Your task to perform on an android device: turn on sleep mode Image 0: 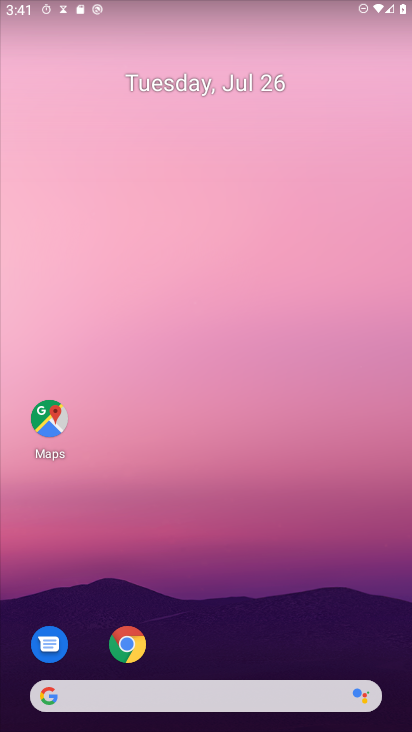
Step 0: click (52, 421)
Your task to perform on an android device: turn on sleep mode Image 1: 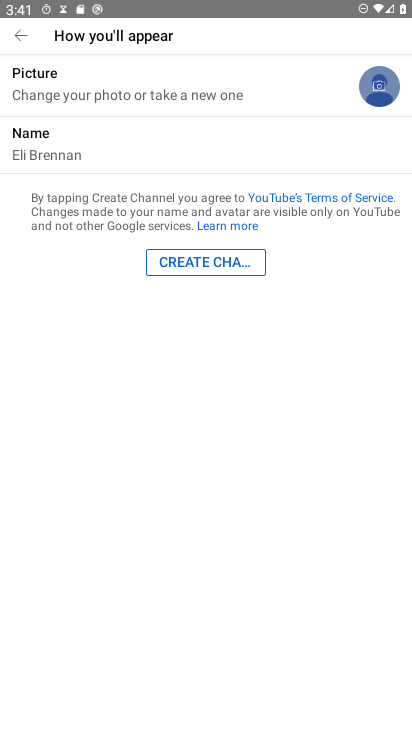
Step 1: press home button
Your task to perform on an android device: turn on sleep mode Image 2: 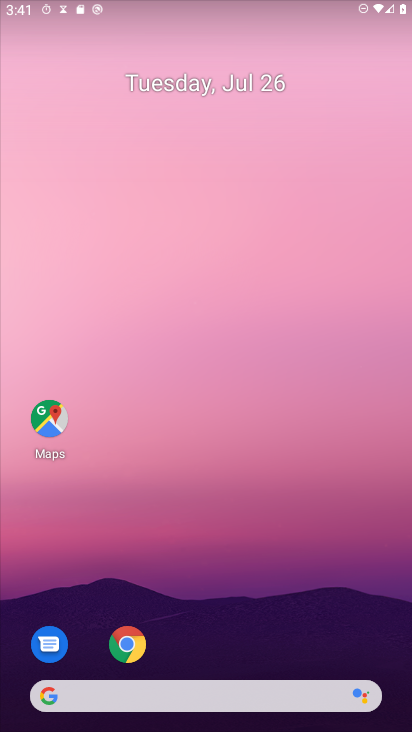
Step 2: drag from (308, 573) to (326, 75)
Your task to perform on an android device: turn on sleep mode Image 3: 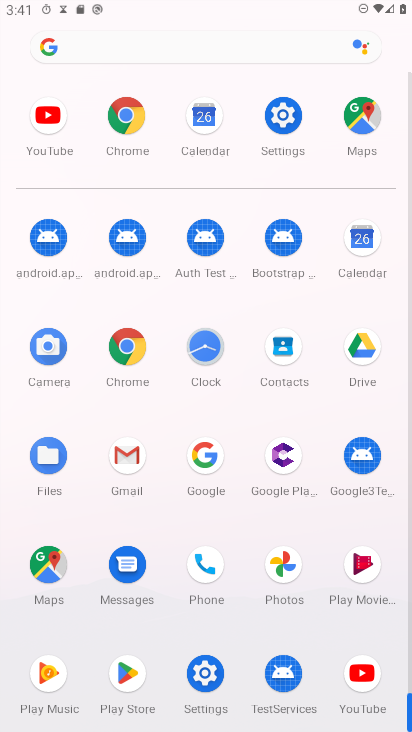
Step 3: click (278, 107)
Your task to perform on an android device: turn on sleep mode Image 4: 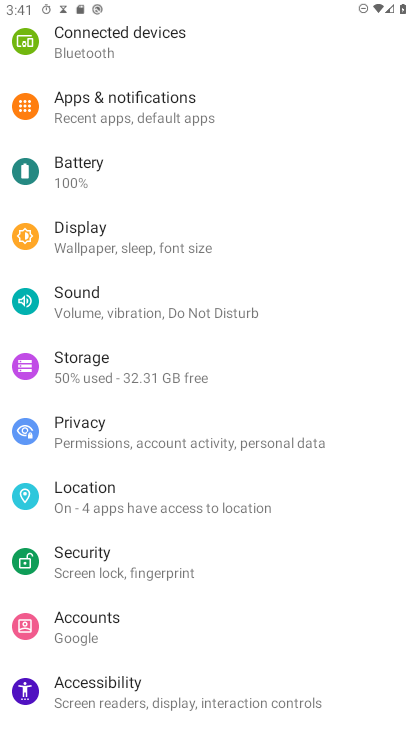
Step 4: drag from (115, 139) to (108, 418)
Your task to perform on an android device: turn on sleep mode Image 5: 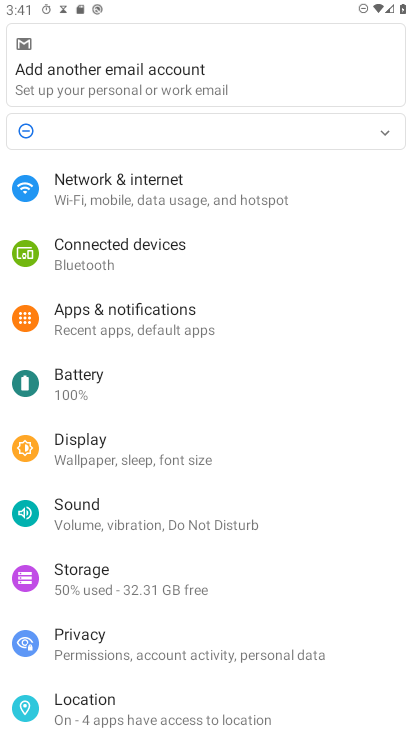
Step 5: click (78, 445)
Your task to perform on an android device: turn on sleep mode Image 6: 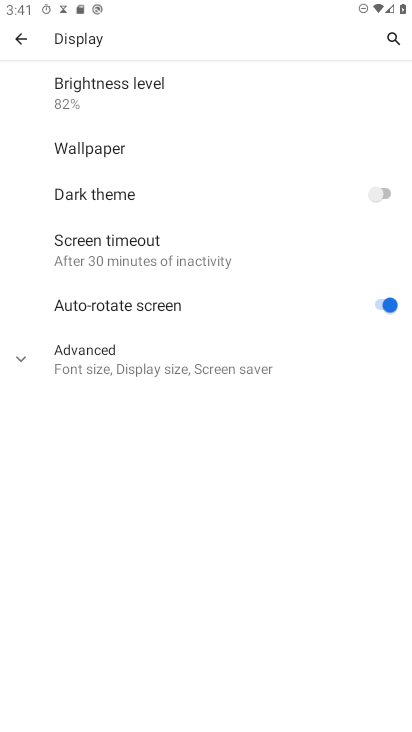
Step 6: click (18, 357)
Your task to perform on an android device: turn on sleep mode Image 7: 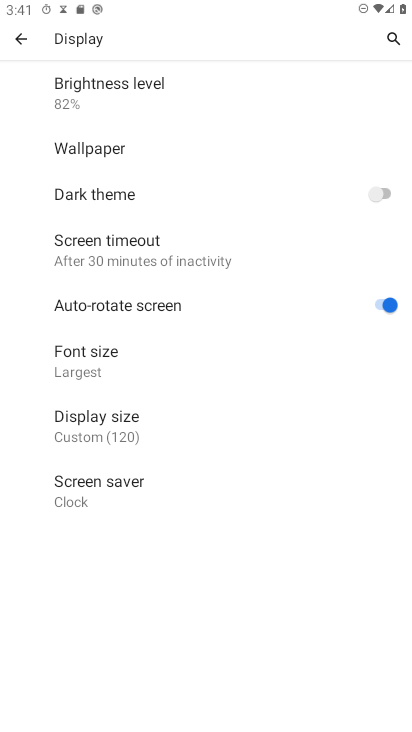
Step 7: task complete